Your task to perform on an android device: turn smart compose on in the gmail app Image 0: 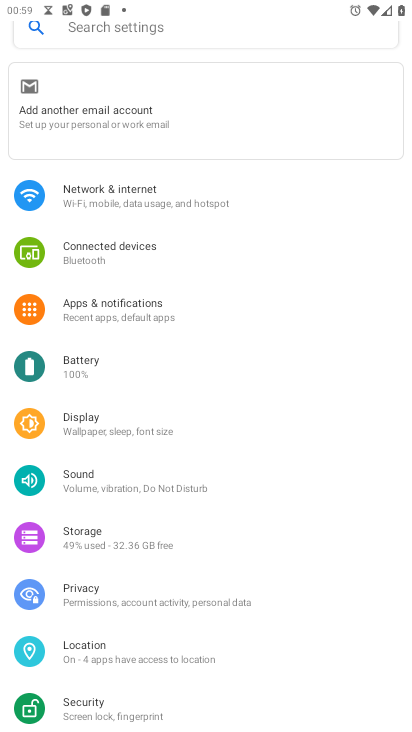
Step 0: press home button
Your task to perform on an android device: turn smart compose on in the gmail app Image 1: 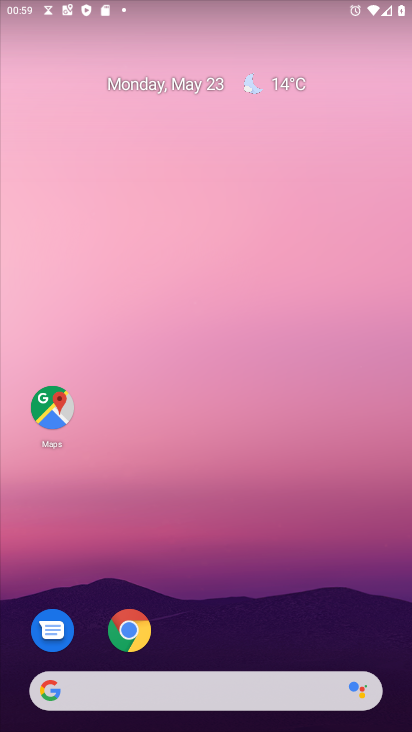
Step 1: drag from (283, 582) to (274, 42)
Your task to perform on an android device: turn smart compose on in the gmail app Image 2: 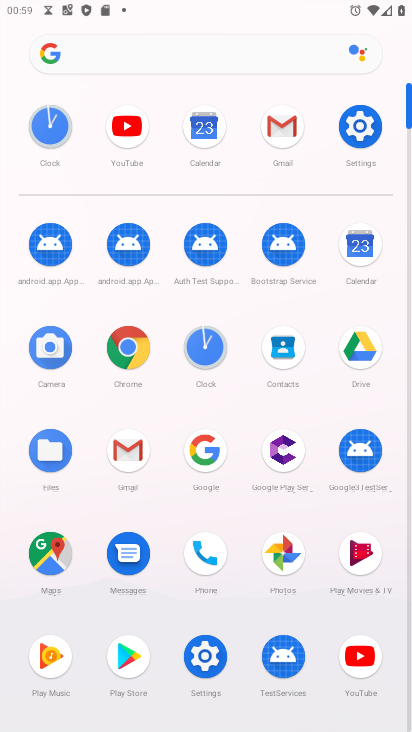
Step 2: click (143, 444)
Your task to perform on an android device: turn smart compose on in the gmail app Image 3: 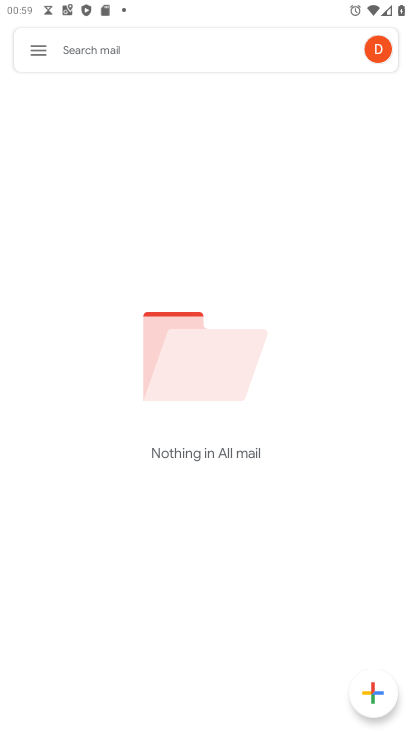
Step 3: click (42, 46)
Your task to perform on an android device: turn smart compose on in the gmail app Image 4: 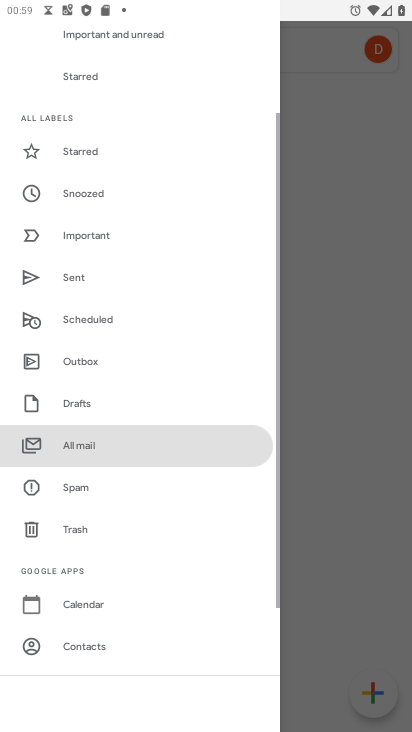
Step 4: drag from (148, 626) to (170, 137)
Your task to perform on an android device: turn smart compose on in the gmail app Image 5: 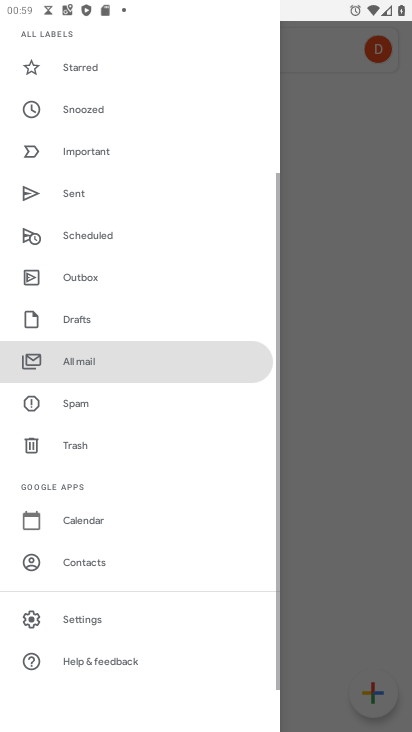
Step 5: click (102, 617)
Your task to perform on an android device: turn smart compose on in the gmail app Image 6: 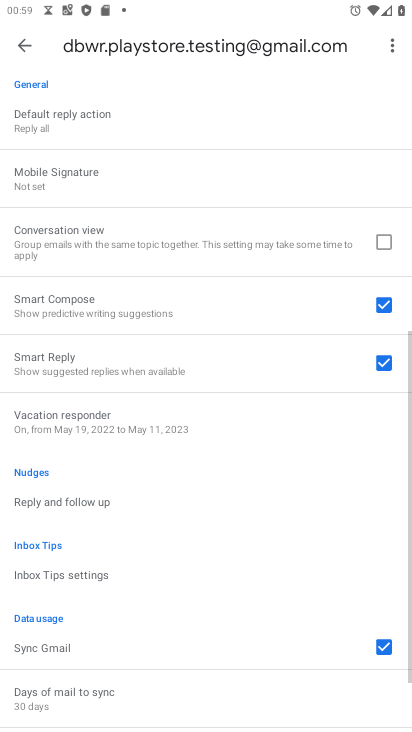
Step 6: task complete